Your task to perform on an android device: open sync settings in chrome Image 0: 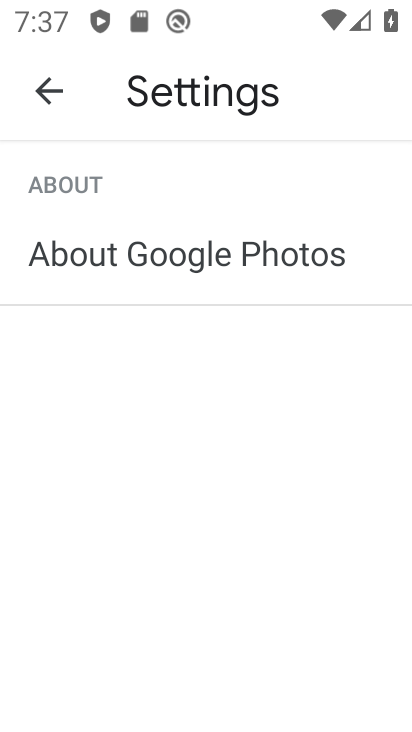
Step 0: press home button
Your task to perform on an android device: open sync settings in chrome Image 1: 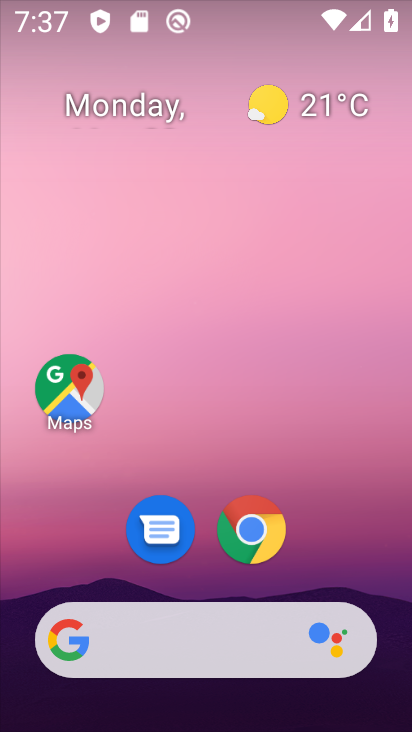
Step 1: click (247, 531)
Your task to perform on an android device: open sync settings in chrome Image 2: 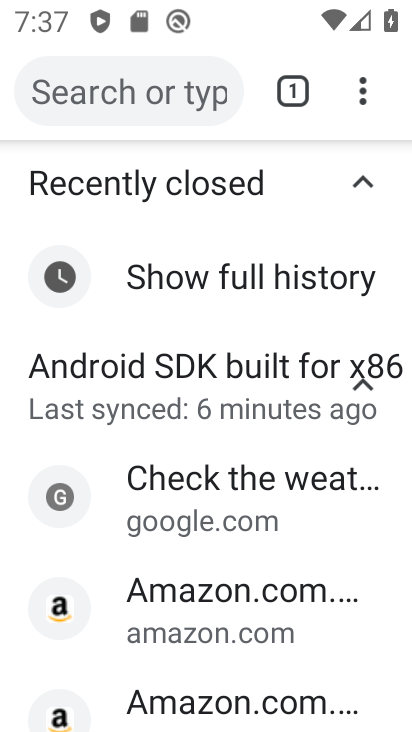
Step 2: click (364, 80)
Your task to perform on an android device: open sync settings in chrome Image 3: 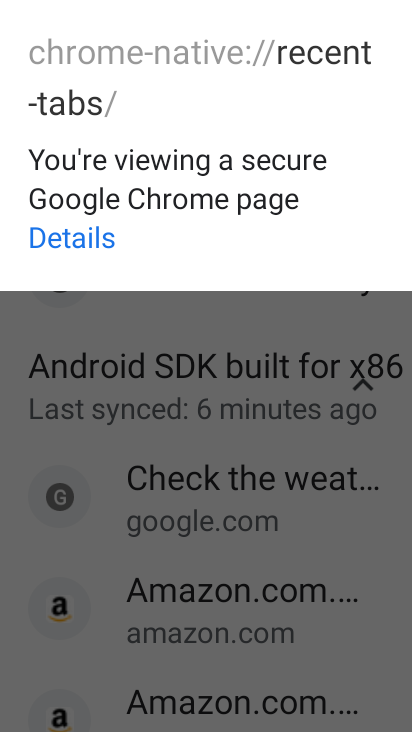
Step 3: click (362, 451)
Your task to perform on an android device: open sync settings in chrome Image 4: 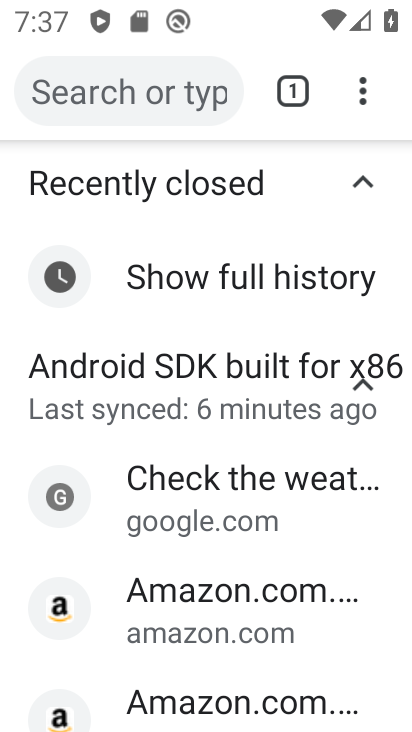
Step 4: click (403, 117)
Your task to perform on an android device: open sync settings in chrome Image 5: 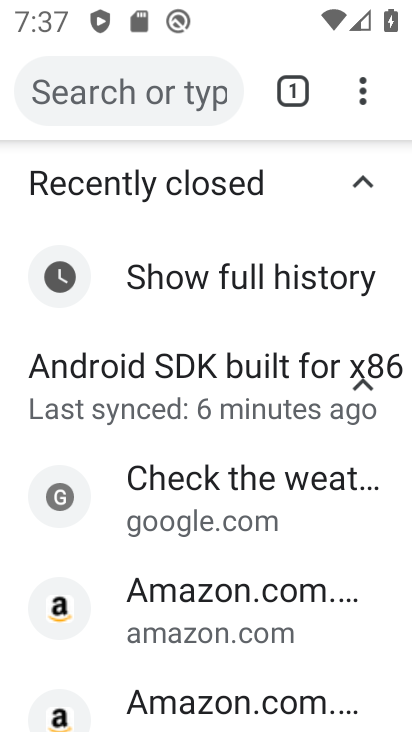
Step 5: click (395, 130)
Your task to perform on an android device: open sync settings in chrome Image 6: 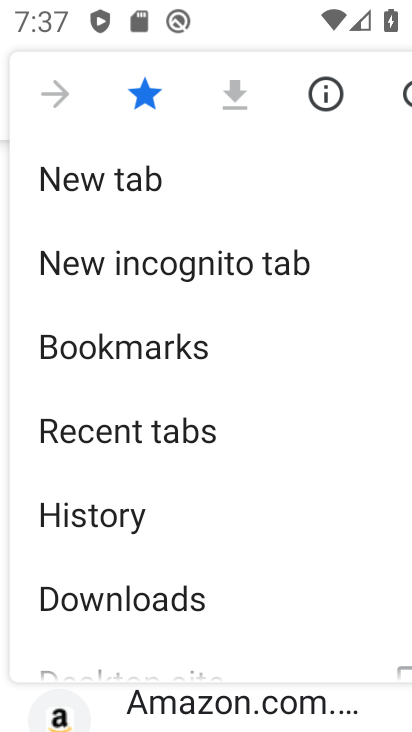
Step 6: drag from (160, 615) to (196, 207)
Your task to perform on an android device: open sync settings in chrome Image 7: 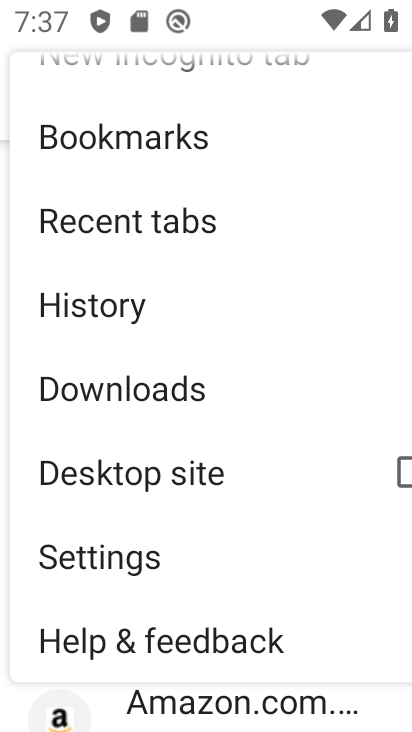
Step 7: click (162, 557)
Your task to perform on an android device: open sync settings in chrome Image 8: 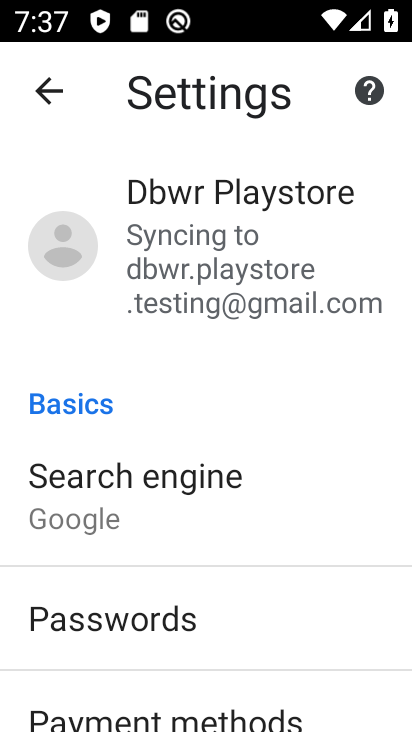
Step 8: click (202, 292)
Your task to perform on an android device: open sync settings in chrome Image 9: 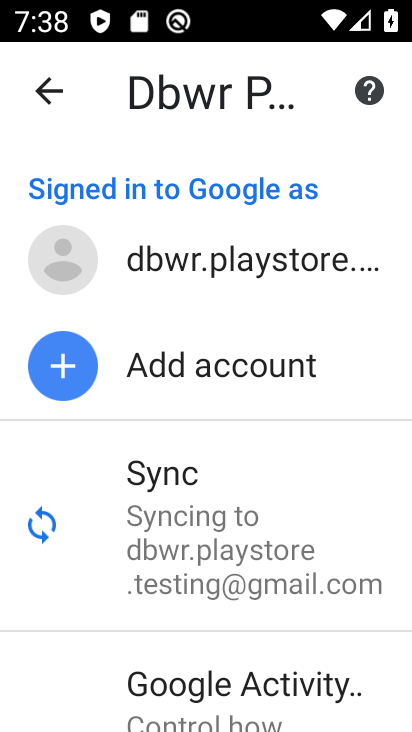
Step 9: click (159, 541)
Your task to perform on an android device: open sync settings in chrome Image 10: 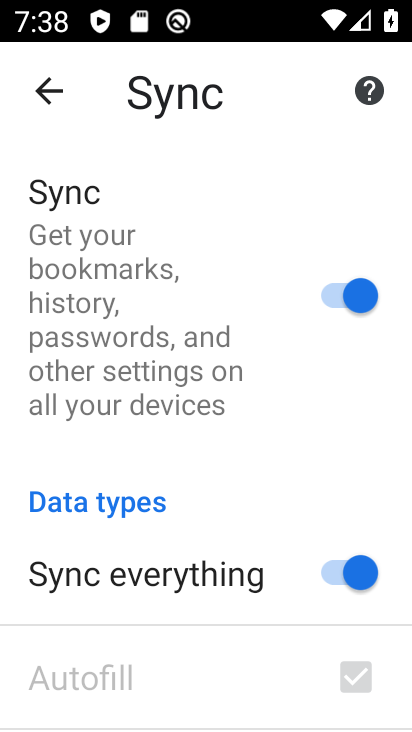
Step 10: task complete